Your task to perform on an android device: toggle data saver in the chrome app Image 0: 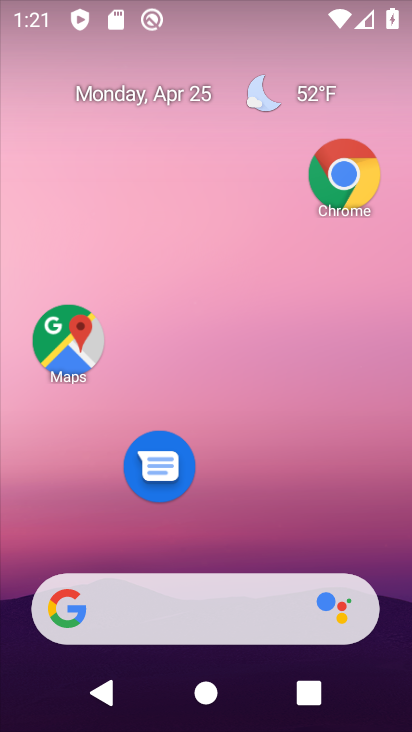
Step 0: click (318, 179)
Your task to perform on an android device: toggle data saver in the chrome app Image 1: 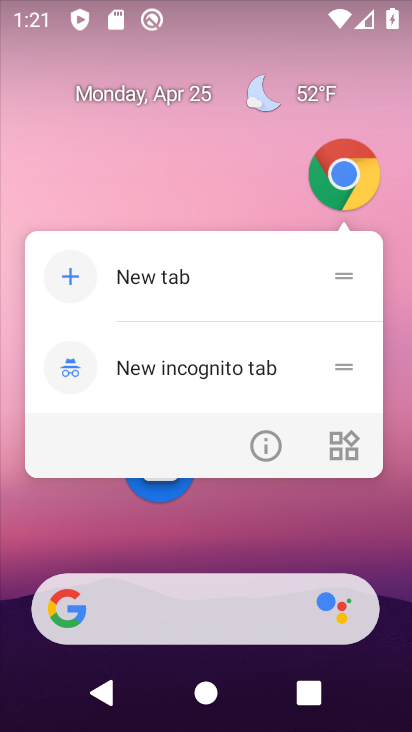
Step 1: click (309, 174)
Your task to perform on an android device: toggle data saver in the chrome app Image 2: 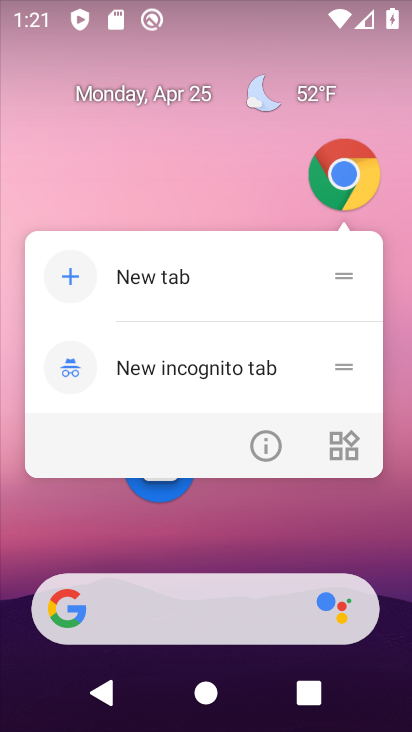
Step 2: click (304, 175)
Your task to perform on an android device: toggle data saver in the chrome app Image 3: 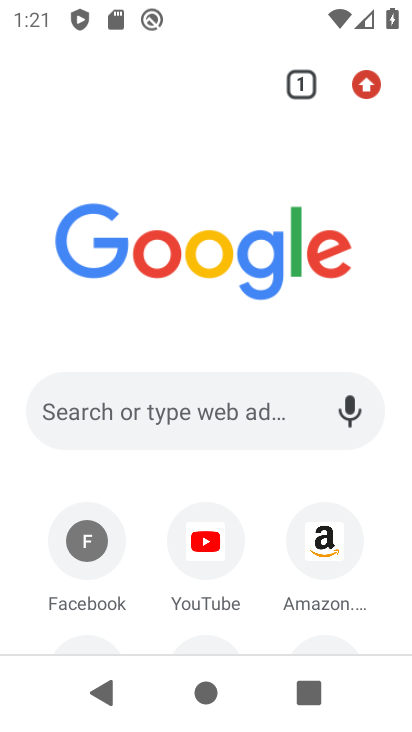
Step 3: click (368, 88)
Your task to perform on an android device: toggle data saver in the chrome app Image 4: 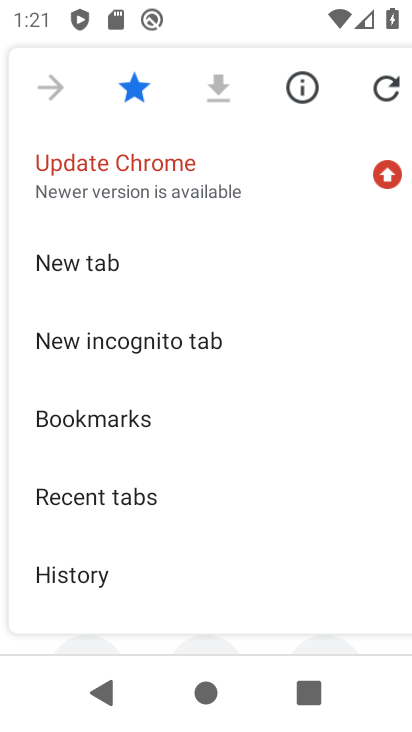
Step 4: drag from (242, 478) to (243, 203)
Your task to perform on an android device: toggle data saver in the chrome app Image 5: 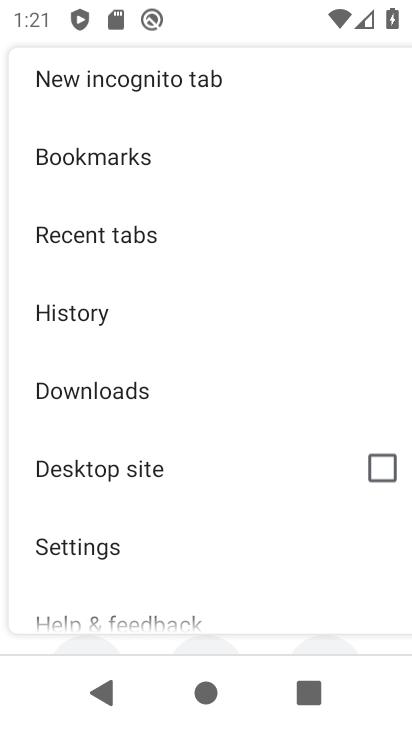
Step 5: click (106, 551)
Your task to perform on an android device: toggle data saver in the chrome app Image 6: 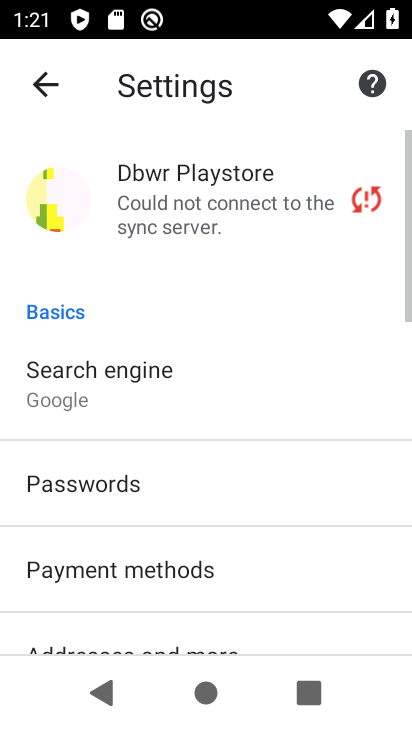
Step 6: drag from (84, 600) to (36, 291)
Your task to perform on an android device: toggle data saver in the chrome app Image 7: 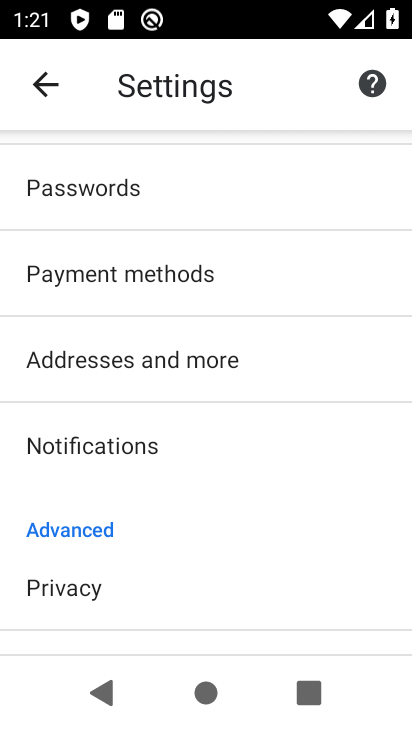
Step 7: drag from (49, 625) to (55, 301)
Your task to perform on an android device: toggle data saver in the chrome app Image 8: 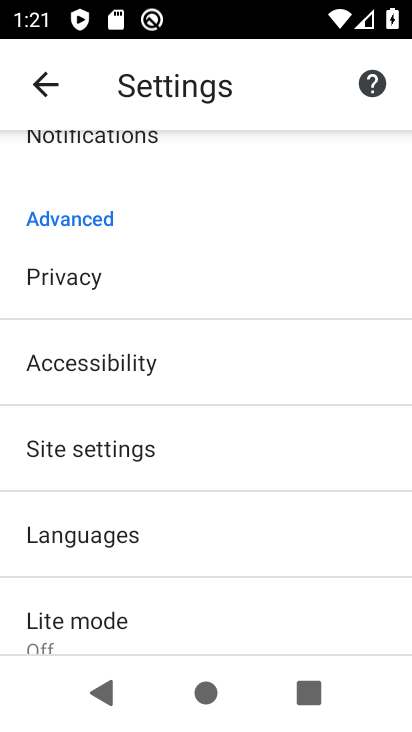
Step 8: drag from (110, 576) to (102, 353)
Your task to perform on an android device: toggle data saver in the chrome app Image 9: 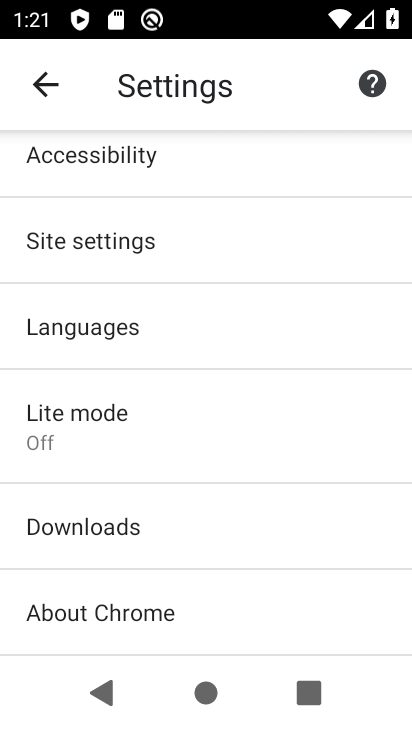
Step 9: click (107, 425)
Your task to perform on an android device: toggle data saver in the chrome app Image 10: 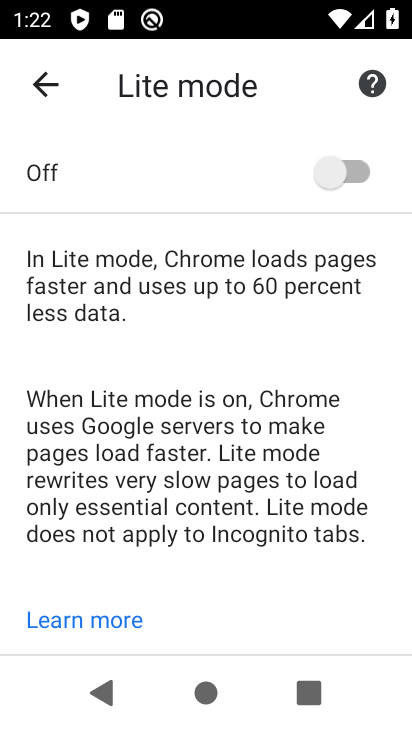
Step 10: click (309, 170)
Your task to perform on an android device: toggle data saver in the chrome app Image 11: 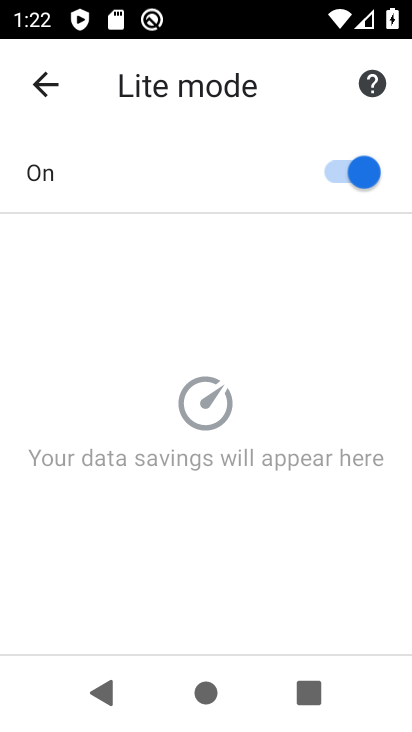
Step 11: task complete